Your task to perform on an android device: What's the weather going to be this weekend? Image 0: 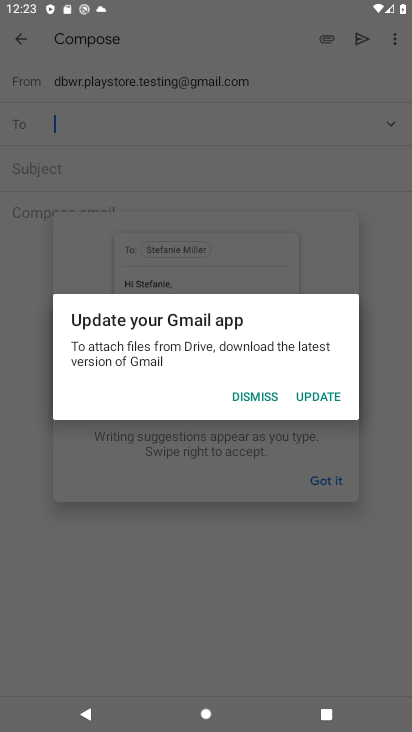
Step 0: press home button
Your task to perform on an android device: What's the weather going to be this weekend? Image 1: 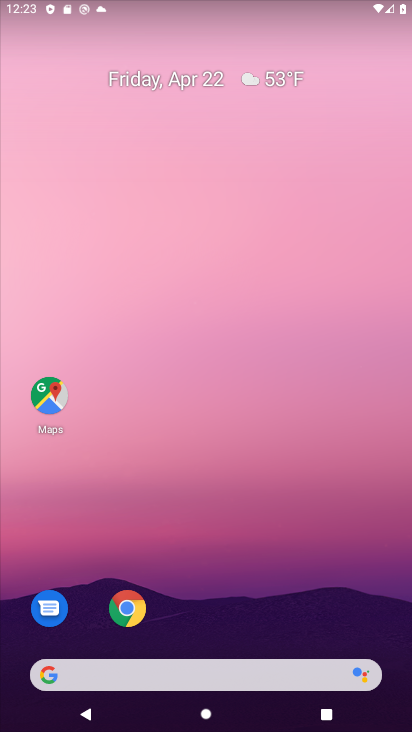
Step 1: click (274, 85)
Your task to perform on an android device: What's the weather going to be this weekend? Image 2: 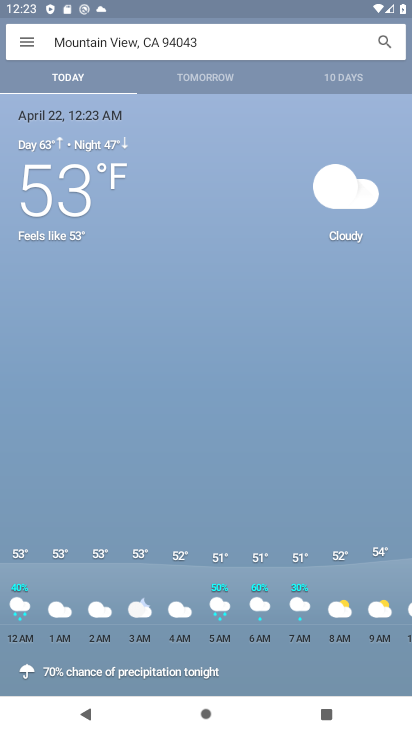
Step 2: drag from (231, 600) to (231, 264)
Your task to perform on an android device: What's the weather going to be this weekend? Image 3: 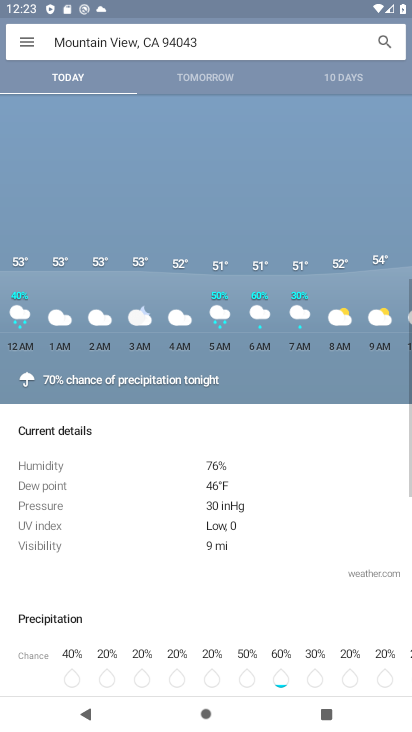
Step 3: click (353, 78)
Your task to perform on an android device: What's the weather going to be this weekend? Image 4: 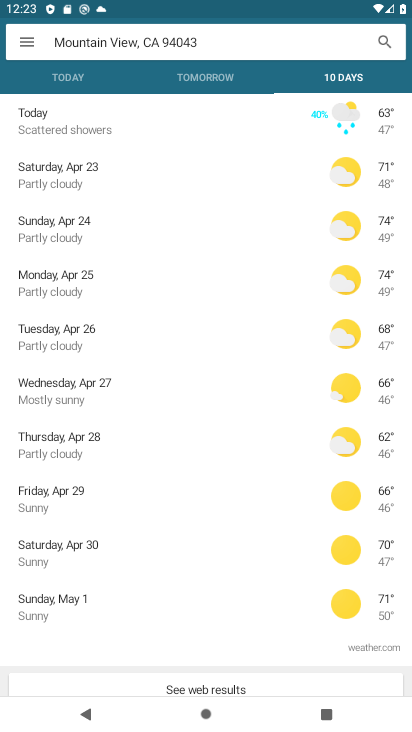
Step 4: task complete